Your task to perform on an android device: Open the Play Movies app and select the watchlist tab. Image 0: 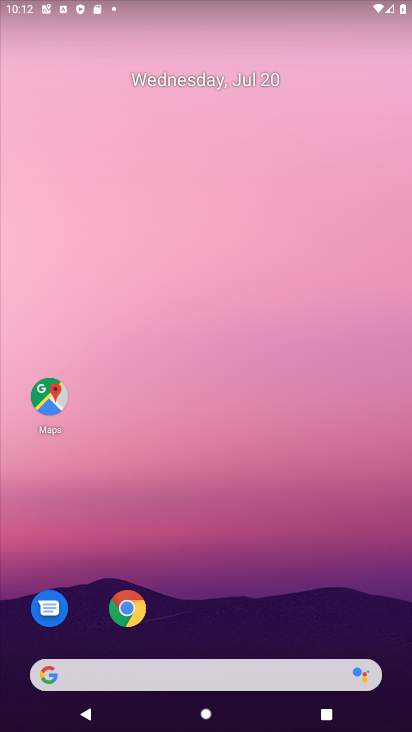
Step 0: drag from (176, 613) to (234, 168)
Your task to perform on an android device: Open the Play Movies app and select the watchlist tab. Image 1: 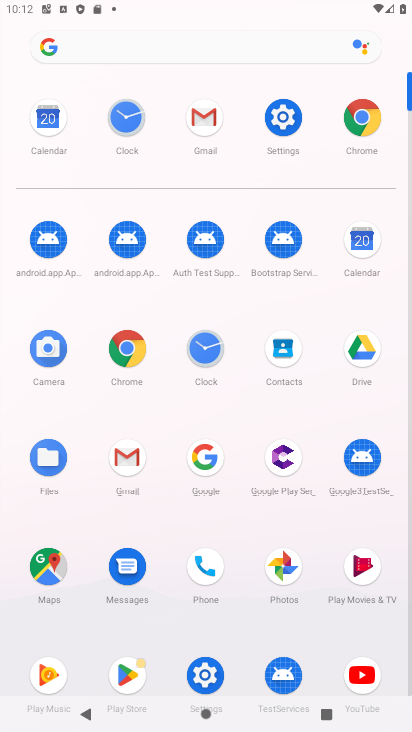
Step 1: click (357, 570)
Your task to perform on an android device: Open the Play Movies app and select the watchlist tab. Image 2: 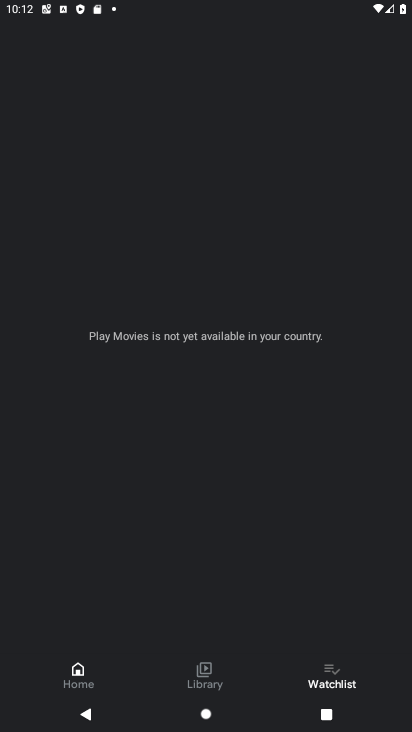
Step 2: click (343, 677)
Your task to perform on an android device: Open the Play Movies app and select the watchlist tab. Image 3: 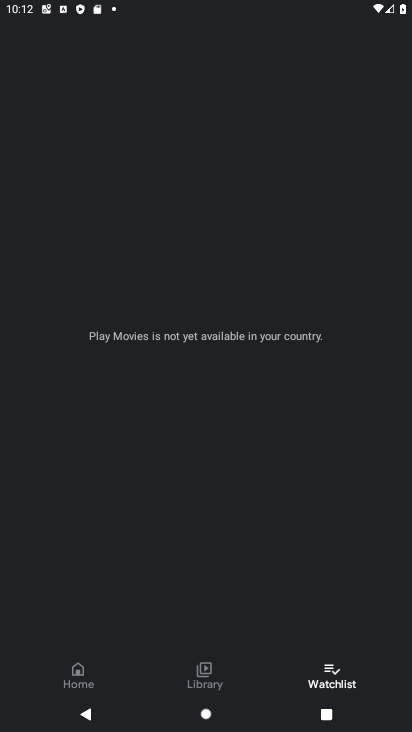
Step 3: task complete